Your task to perform on an android device: empty trash in google photos Image 0: 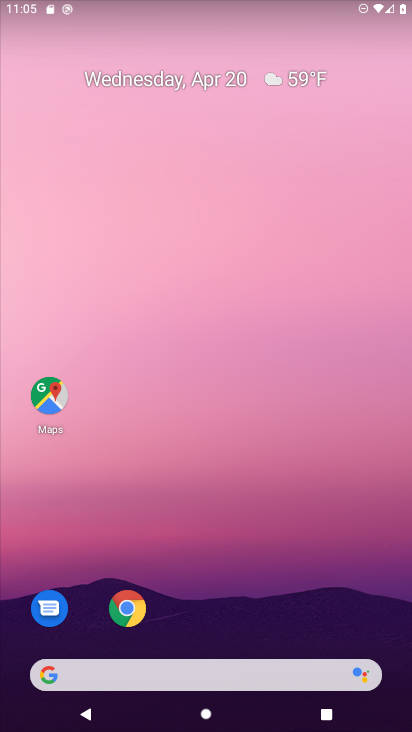
Step 0: drag from (235, 492) to (255, 139)
Your task to perform on an android device: empty trash in google photos Image 1: 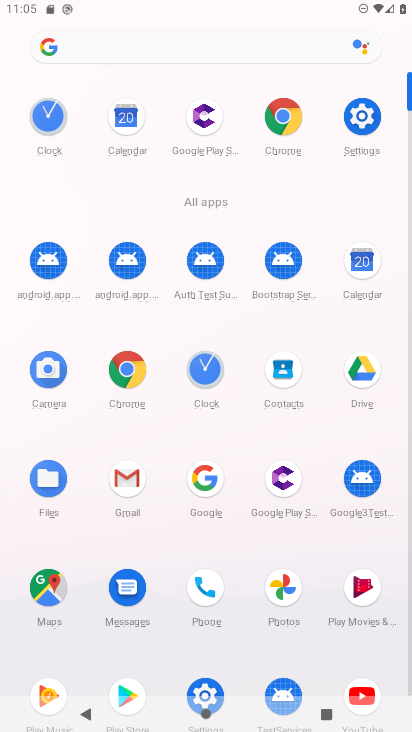
Step 1: click (291, 603)
Your task to perform on an android device: empty trash in google photos Image 2: 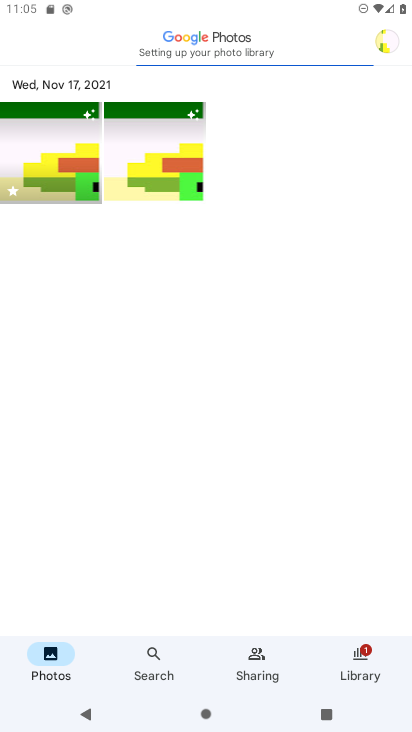
Step 2: click (364, 668)
Your task to perform on an android device: empty trash in google photos Image 3: 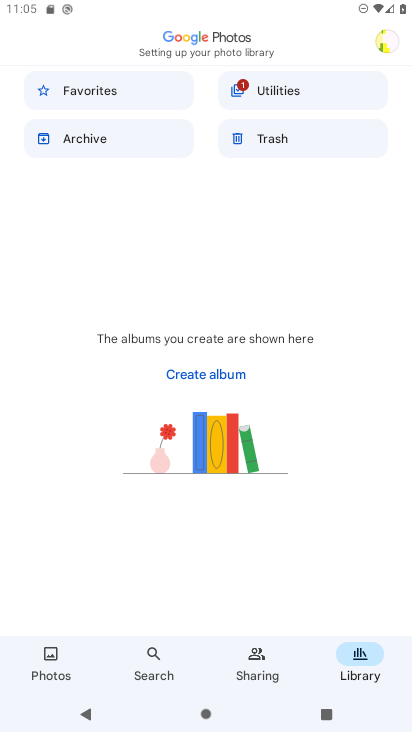
Step 3: click (266, 135)
Your task to perform on an android device: empty trash in google photos Image 4: 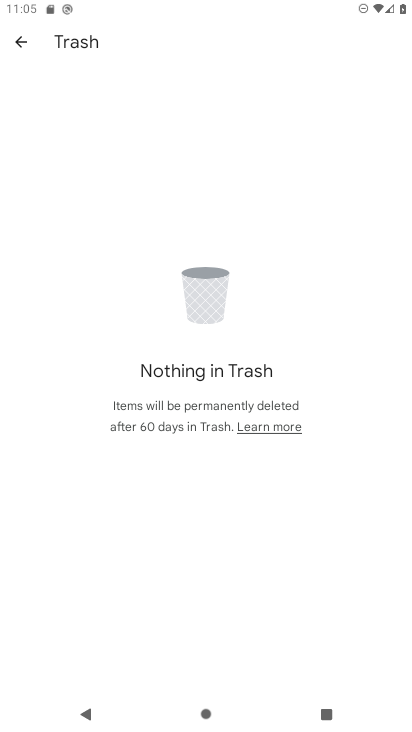
Step 4: task complete